Your task to perform on an android device: check battery use Image 0: 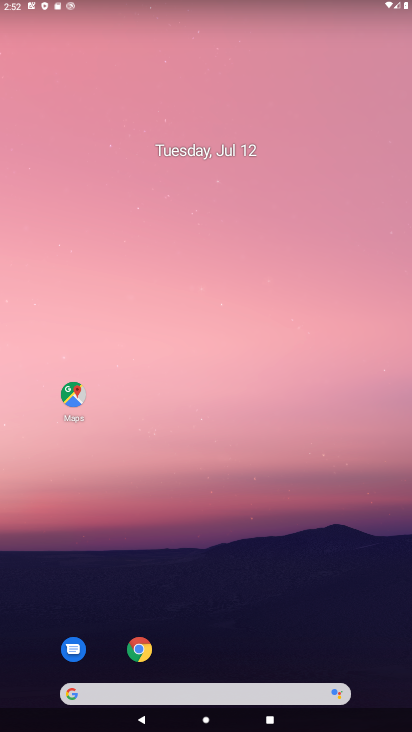
Step 0: drag from (217, 351) to (199, 52)
Your task to perform on an android device: check battery use Image 1: 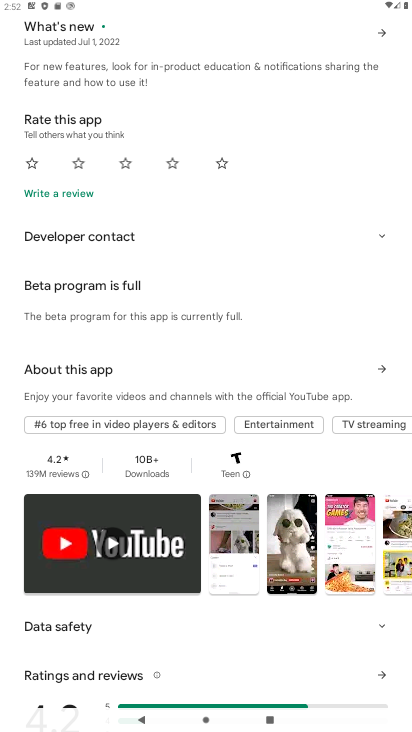
Step 1: press back button
Your task to perform on an android device: check battery use Image 2: 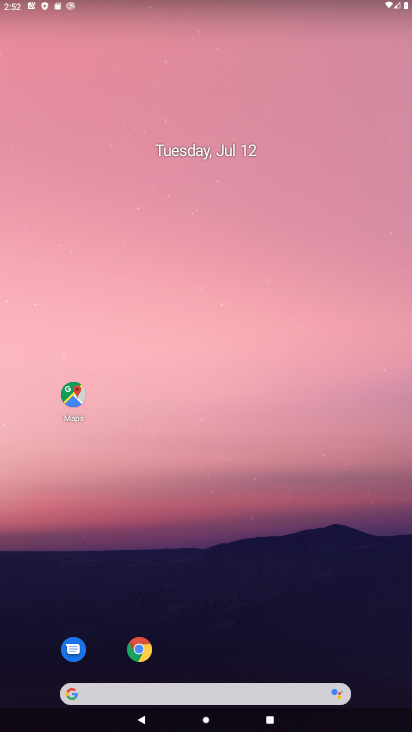
Step 2: drag from (284, 627) to (256, 189)
Your task to perform on an android device: check battery use Image 3: 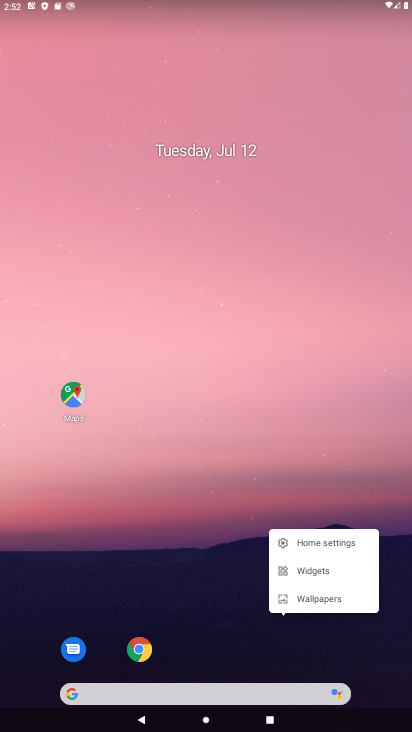
Step 3: click (219, 538)
Your task to perform on an android device: check battery use Image 4: 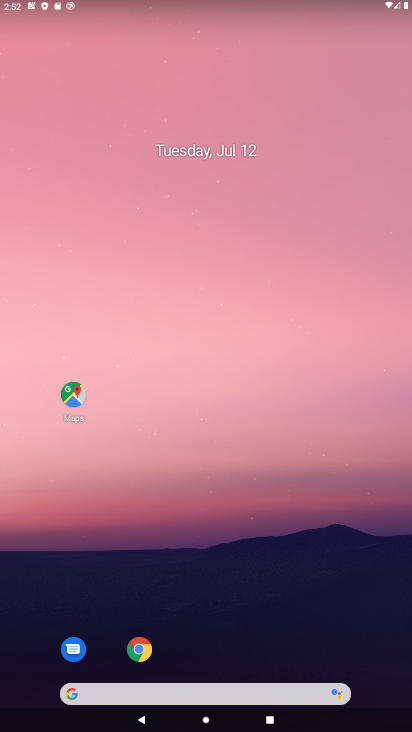
Step 4: drag from (205, 639) to (156, 188)
Your task to perform on an android device: check battery use Image 5: 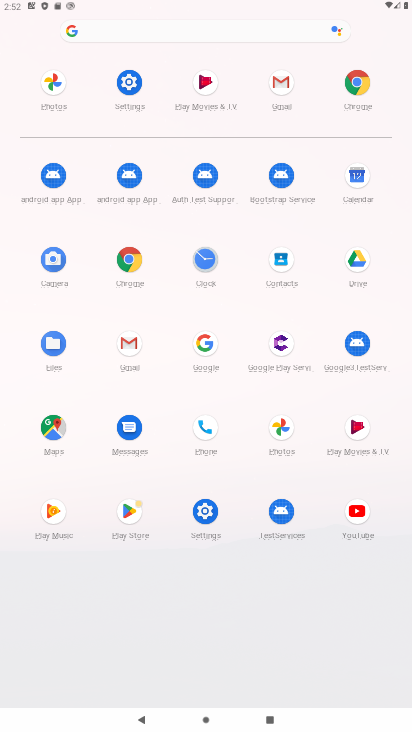
Step 5: click (124, 106)
Your task to perform on an android device: check battery use Image 6: 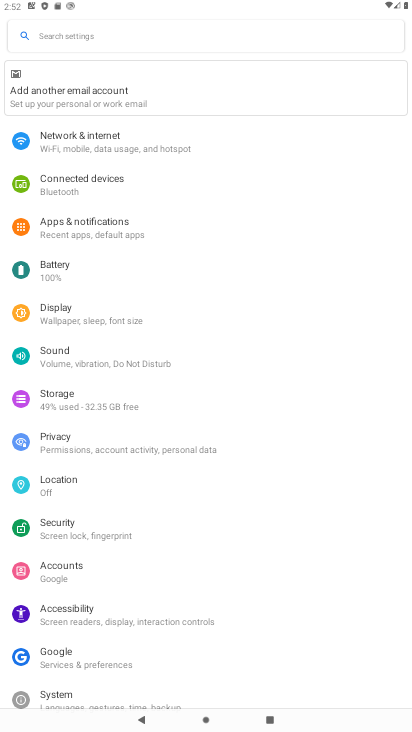
Step 6: click (97, 266)
Your task to perform on an android device: check battery use Image 7: 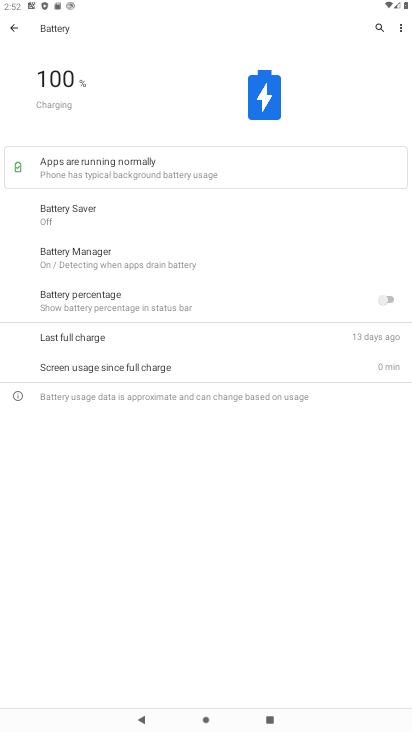
Step 7: task complete